Your task to perform on an android device: Turn off the flashlight Image 0: 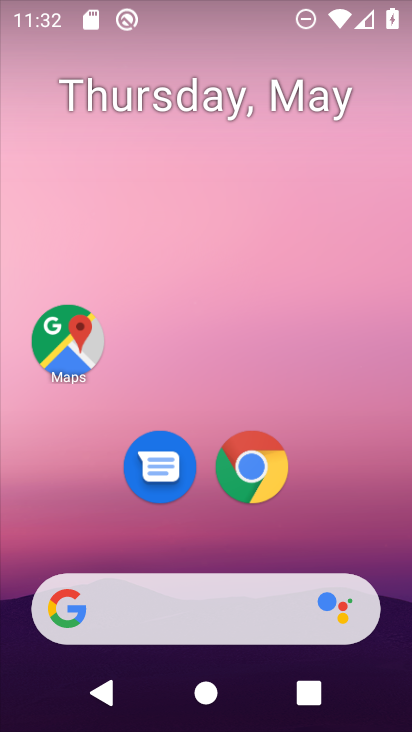
Step 0: click (228, 207)
Your task to perform on an android device: Turn off the flashlight Image 1: 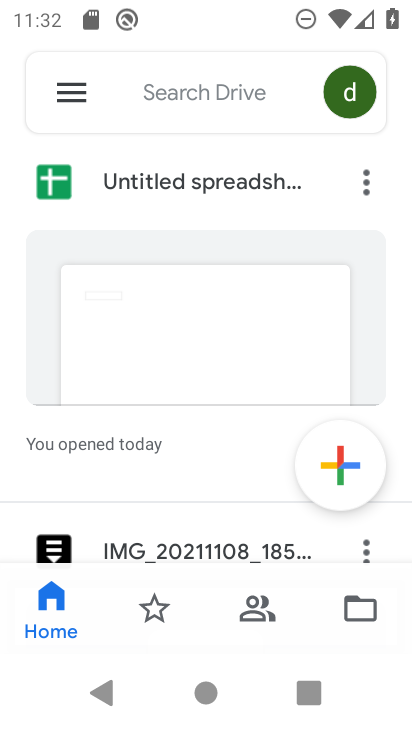
Step 1: press home button
Your task to perform on an android device: Turn off the flashlight Image 2: 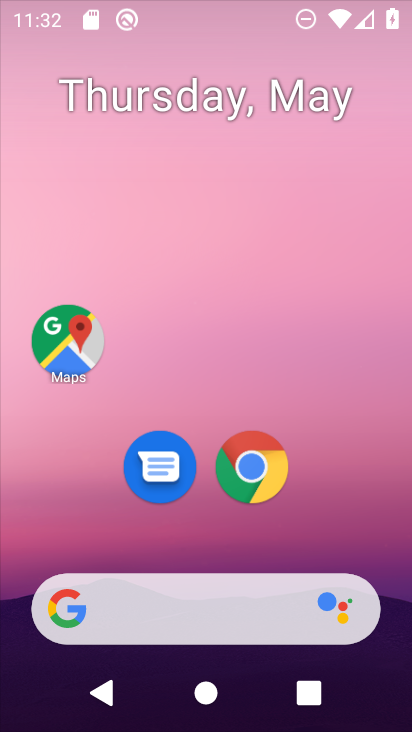
Step 2: drag from (201, 531) to (229, 173)
Your task to perform on an android device: Turn off the flashlight Image 3: 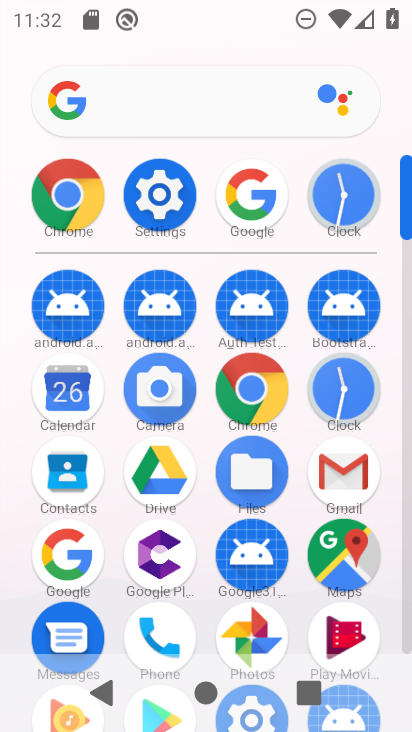
Step 3: drag from (203, 289) to (219, 8)
Your task to perform on an android device: Turn off the flashlight Image 4: 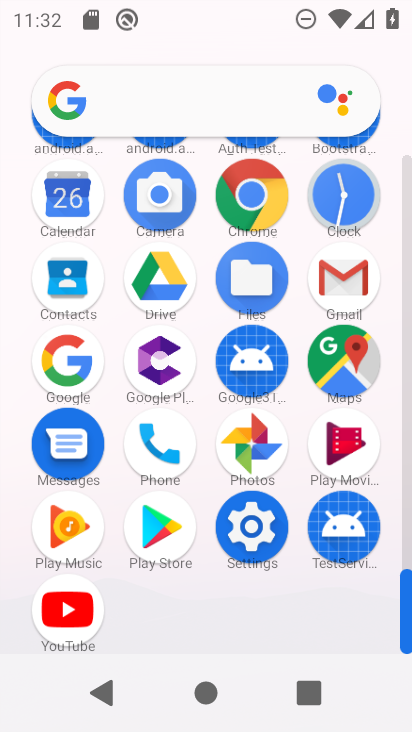
Step 4: click (243, 529)
Your task to perform on an android device: Turn off the flashlight Image 5: 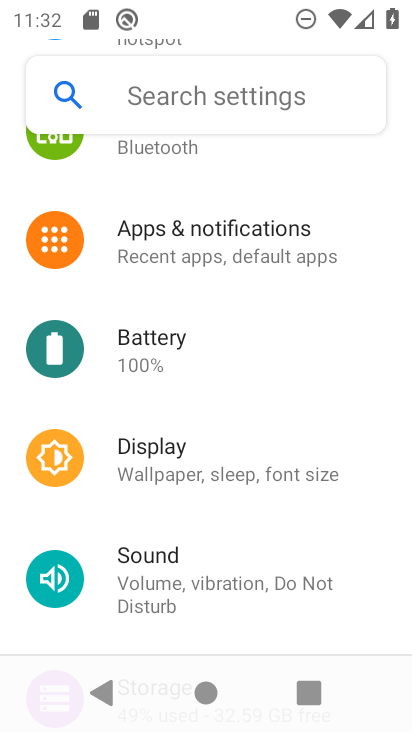
Step 5: task complete